Your task to perform on an android device: star an email in the gmail app Image 0: 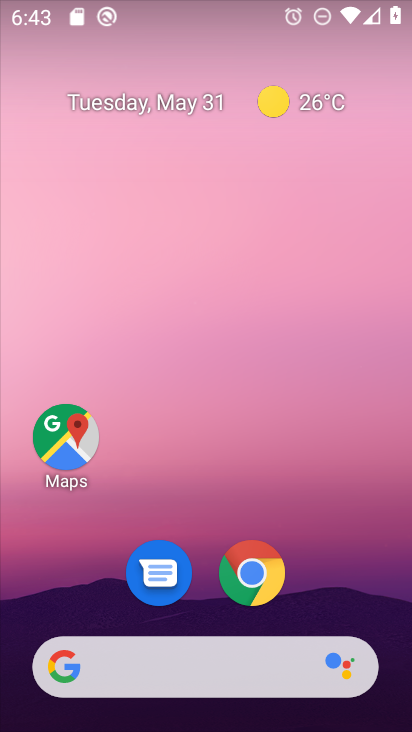
Step 0: drag from (378, 629) to (374, 402)
Your task to perform on an android device: star an email in the gmail app Image 1: 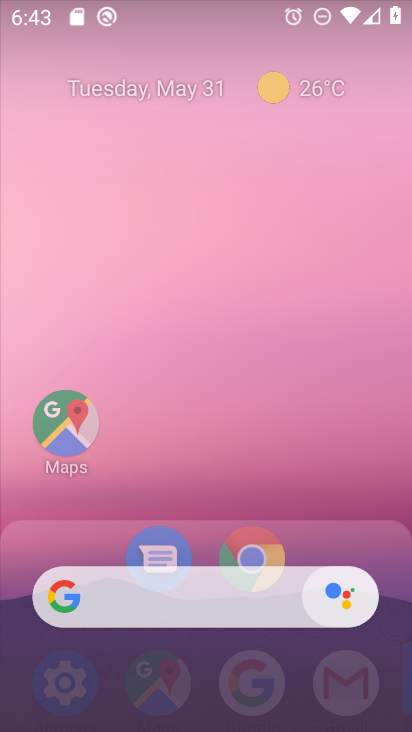
Step 1: drag from (344, 174) to (315, 71)
Your task to perform on an android device: star an email in the gmail app Image 2: 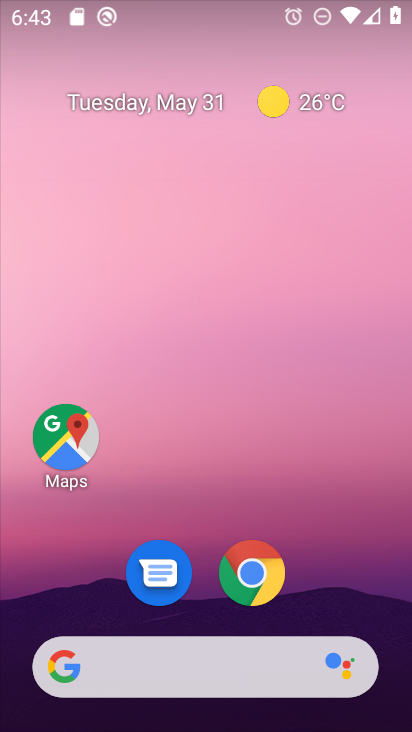
Step 2: drag from (400, 649) to (284, 1)
Your task to perform on an android device: star an email in the gmail app Image 3: 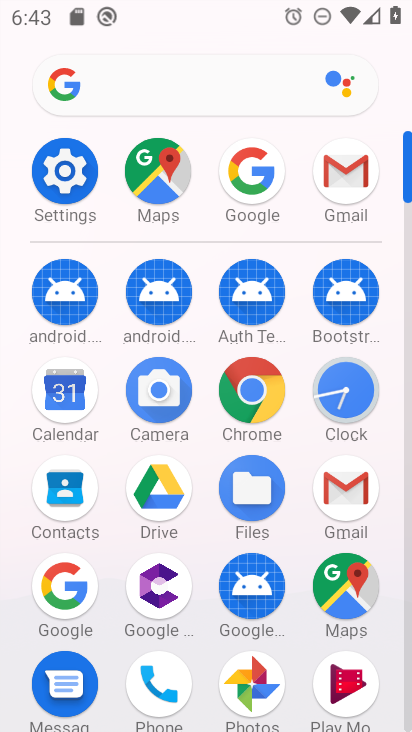
Step 3: click (345, 471)
Your task to perform on an android device: star an email in the gmail app Image 4: 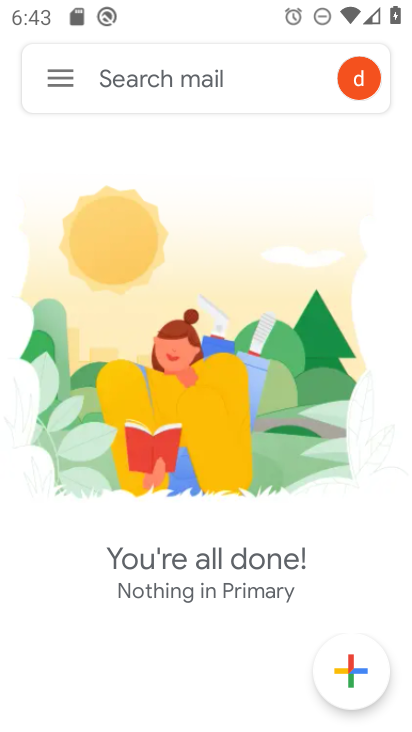
Step 4: task complete